Your task to perform on an android device: Open Youtube and go to "Your channel" Image 0: 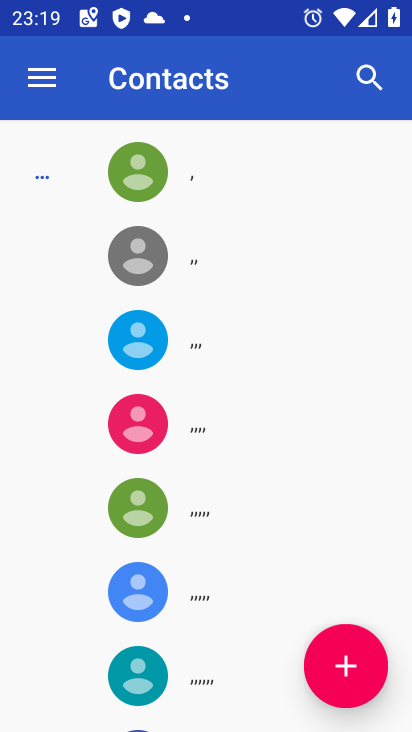
Step 0: press home button
Your task to perform on an android device: Open Youtube and go to "Your channel" Image 1: 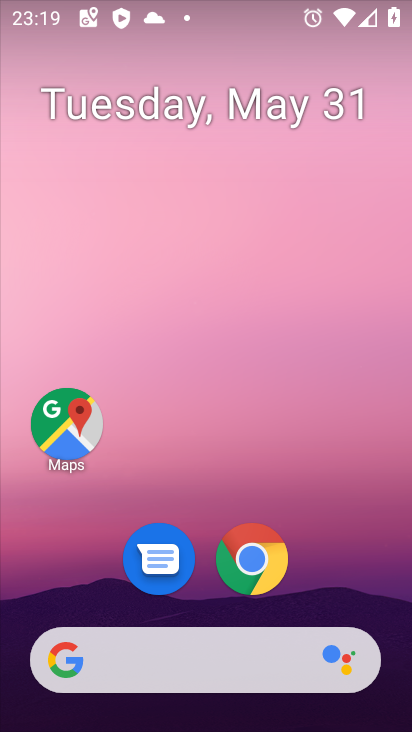
Step 1: drag from (340, 587) to (326, 43)
Your task to perform on an android device: Open Youtube and go to "Your channel" Image 2: 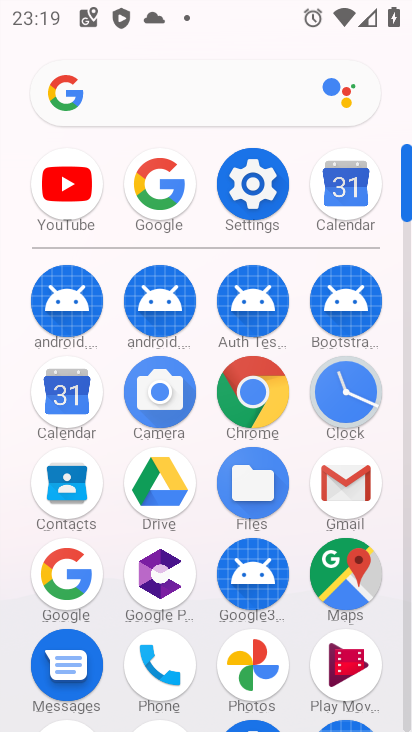
Step 2: click (65, 181)
Your task to perform on an android device: Open Youtube and go to "Your channel" Image 3: 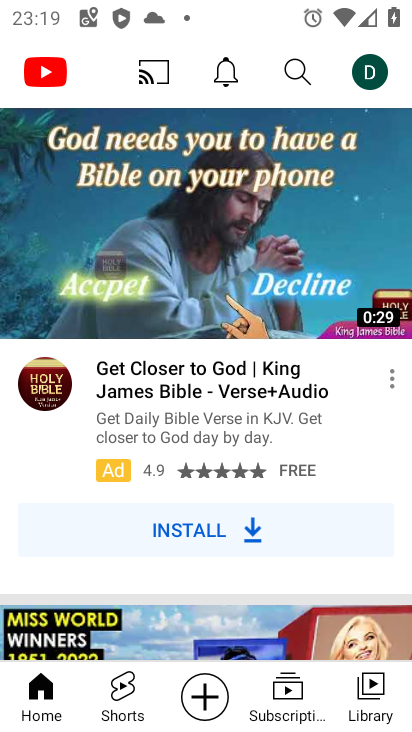
Step 3: click (368, 65)
Your task to perform on an android device: Open Youtube and go to "Your channel" Image 4: 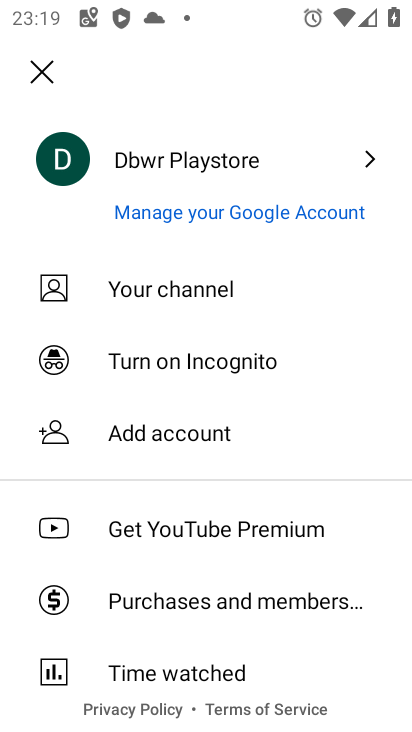
Step 4: click (192, 284)
Your task to perform on an android device: Open Youtube and go to "Your channel" Image 5: 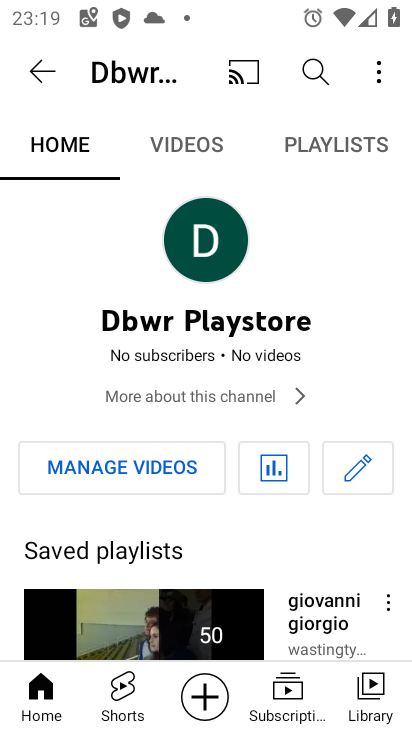
Step 5: task complete